Your task to perform on an android device: See recent photos Image 0: 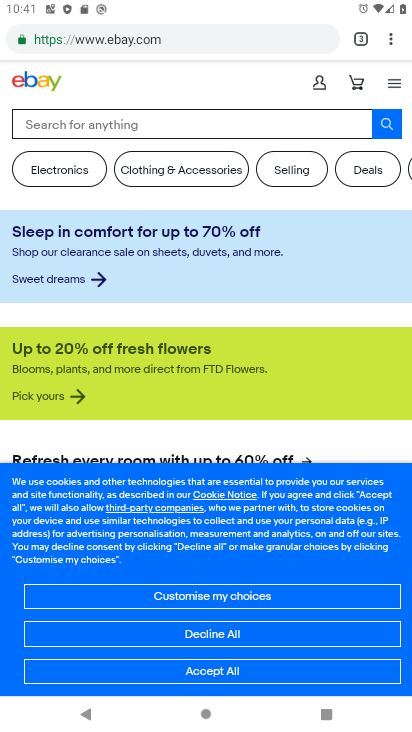
Step 0: press home button
Your task to perform on an android device: See recent photos Image 1: 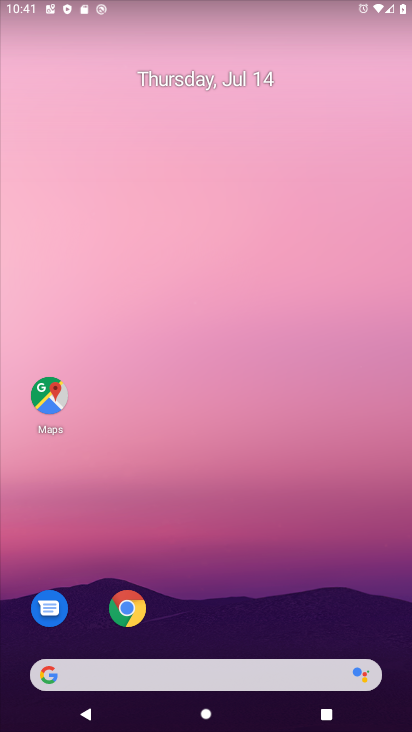
Step 1: drag from (262, 727) to (248, 306)
Your task to perform on an android device: See recent photos Image 2: 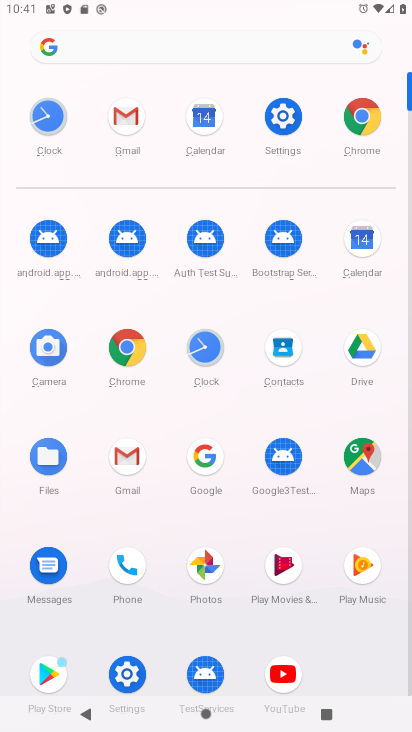
Step 2: click (206, 557)
Your task to perform on an android device: See recent photos Image 3: 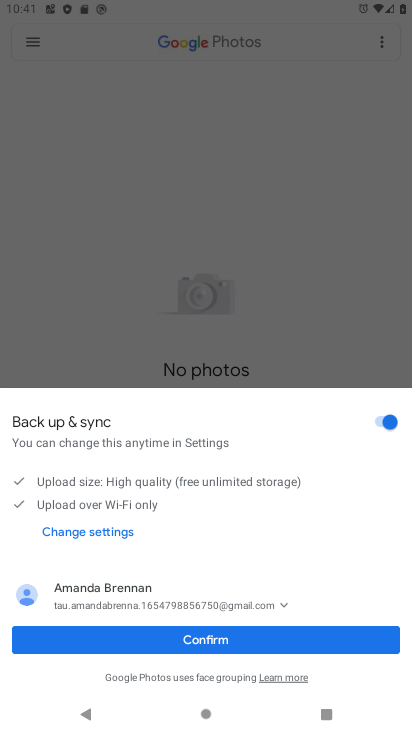
Step 3: click (193, 637)
Your task to perform on an android device: See recent photos Image 4: 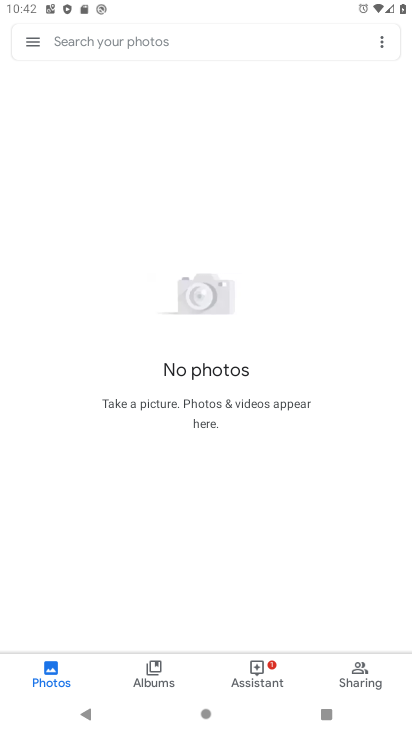
Step 4: task complete